Your task to perform on an android device: turn on location history Image 0: 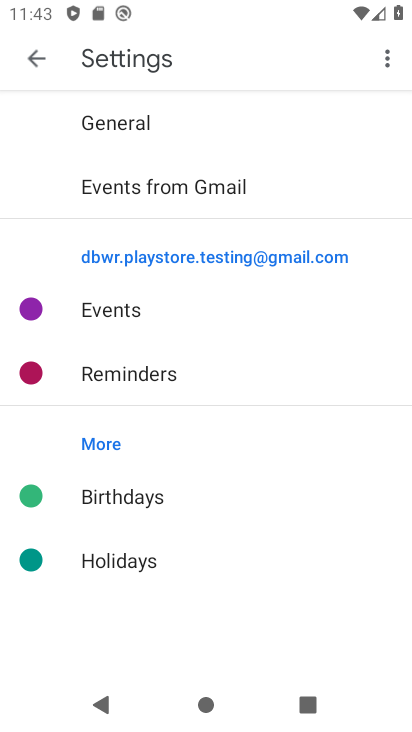
Step 0: press home button
Your task to perform on an android device: turn on location history Image 1: 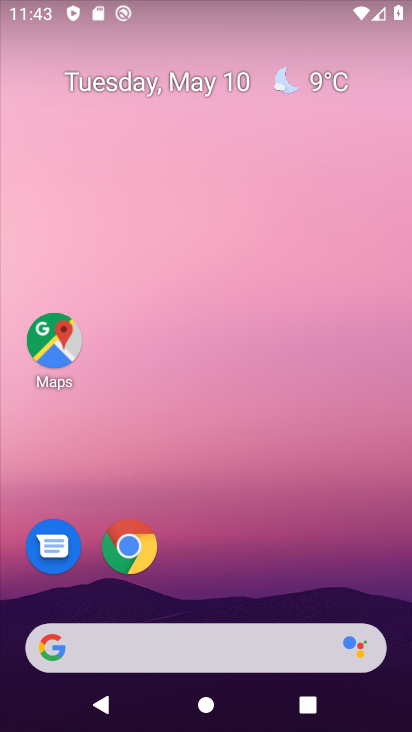
Step 1: drag from (191, 552) to (203, 53)
Your task to perform on an android device: turn on location history Image 2: 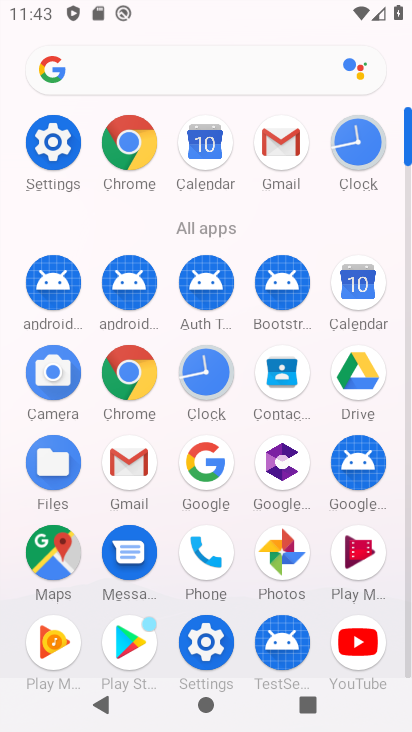
Step 2: click (198, 647)
Your task to perform on an android device: turn on location history Image 3: 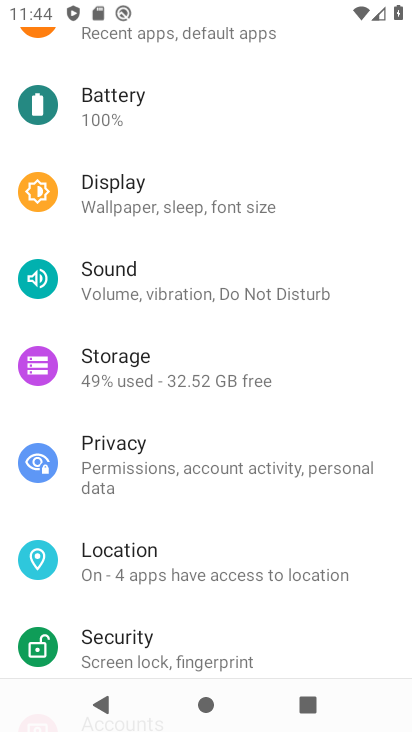
Step 3: click (150, 564)
Your task to perform on an android device: turn on location history Image 4: 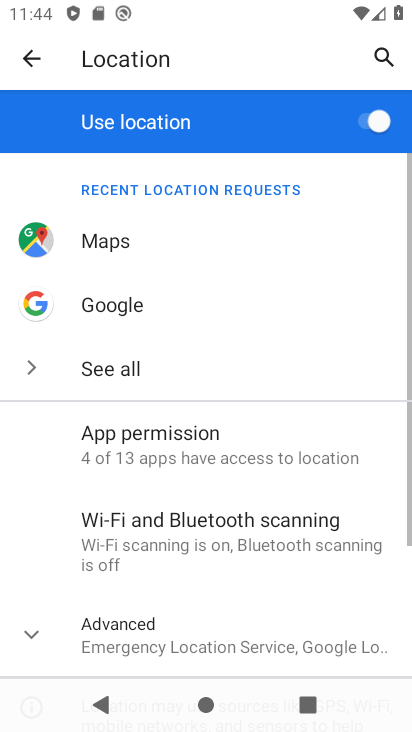
Step 4: click (141, 618)
Your task to perform on an android device: turn on location history Image 5: 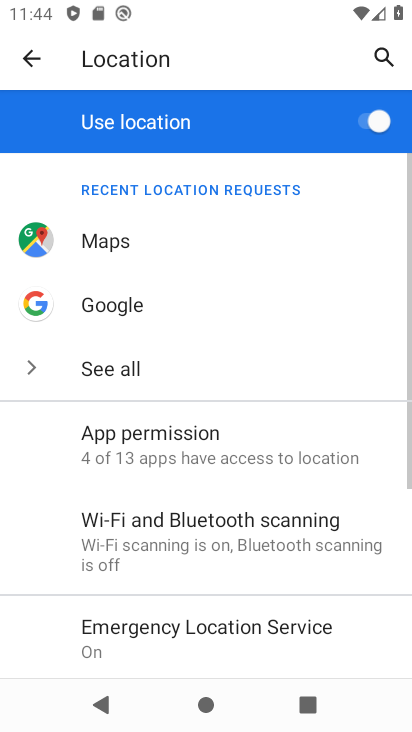
Step 5: drag from (200, 570) to (239, 307)
Your task to perform on an android device: turn on location history Image 6: 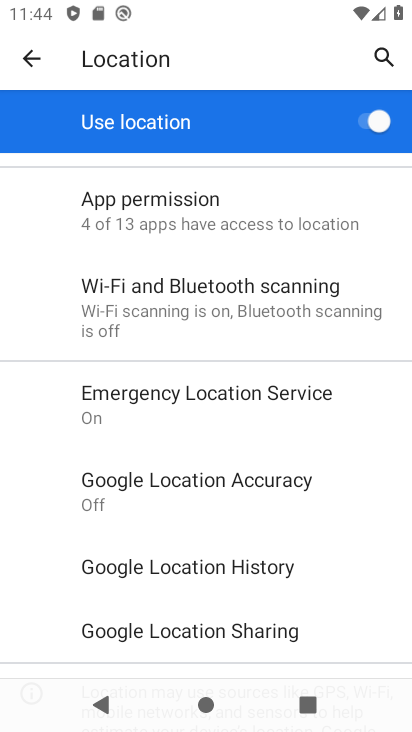
Step 6: click (202, 580)
Your task to perform on an android device: turn on location history Image 7: 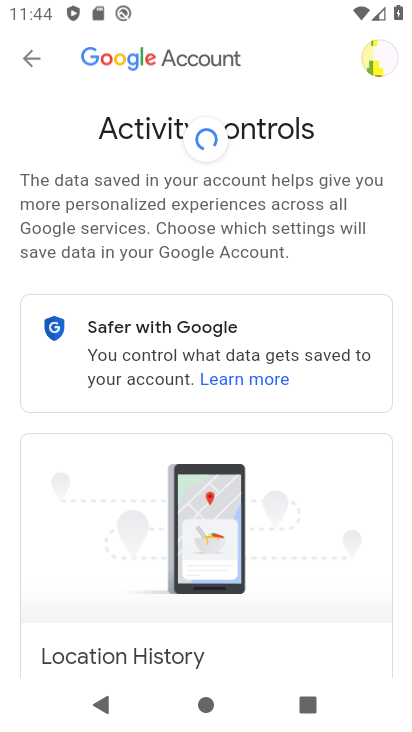
Step 7: task complete